Your task to perform on an android device: set an alarm Image 0: 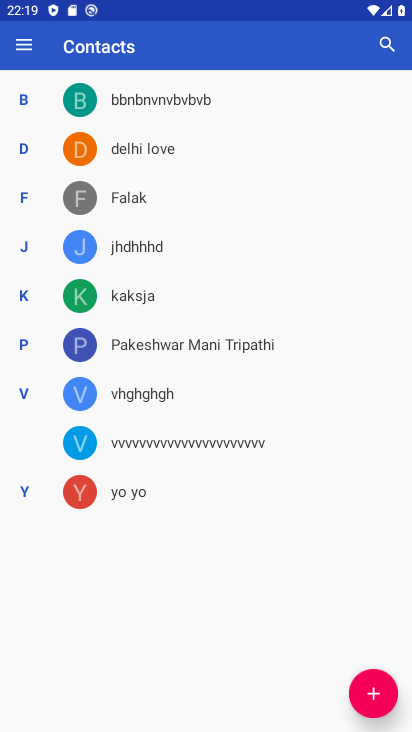
Step 0: press home button
Your task to perform on an android device: set an alarm Image 1: 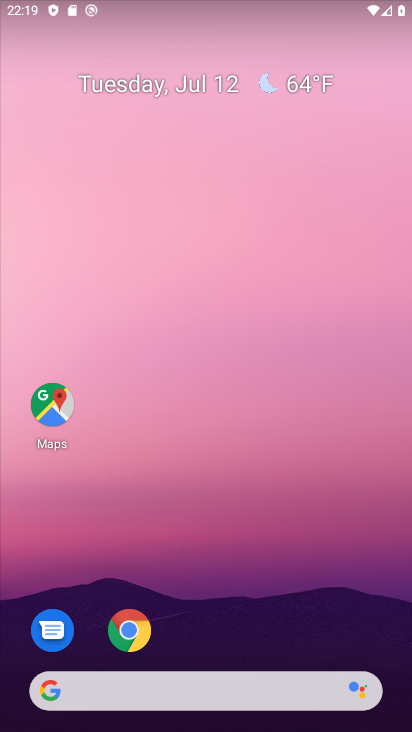
Step 1: drag from (209, 637) to (195, 61)
Your task to perform on an android device: set an alarm Image 2: 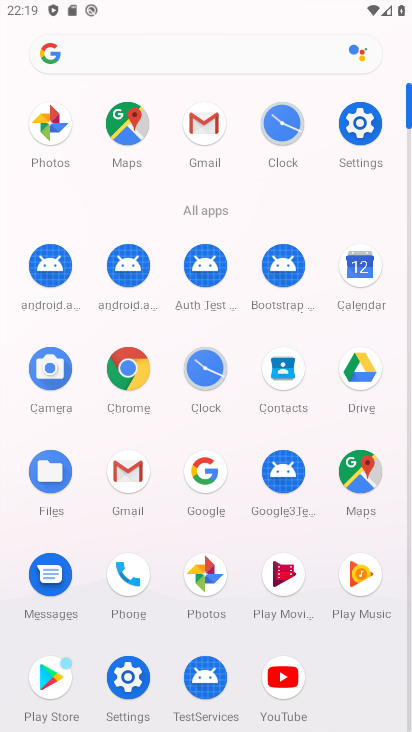
Step 2: click (175, 367)
Your task to perform on an android device: set an alarm Image 3: 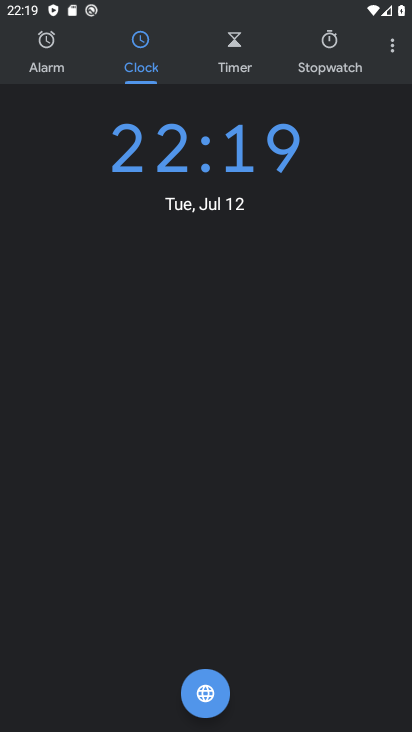
Step 3: click (53, 63)
Your task to perform on an android device: set an alarm Image 4: 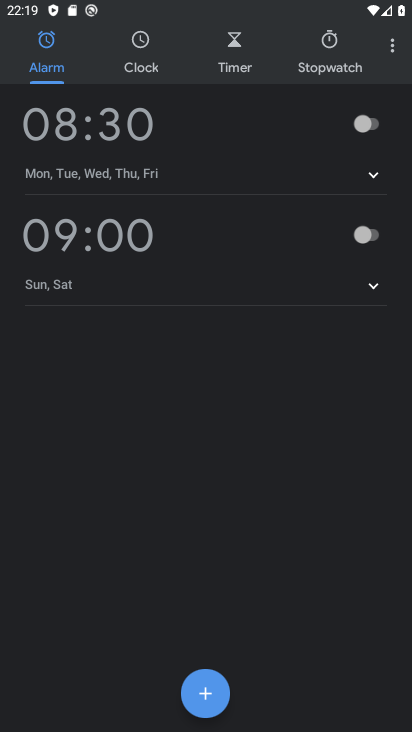
Step 4: click (221, 694)
Your task to perform on an android device: set an alarm Image 5: 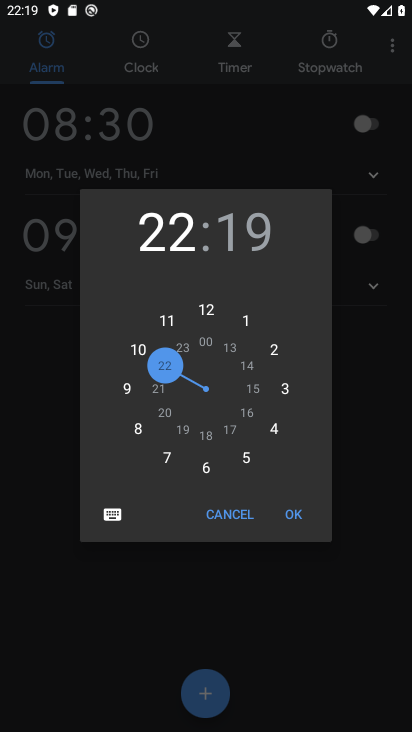
Step 5: click (293, 513)
Your task to perform on an android device: set an alarm Image 6: 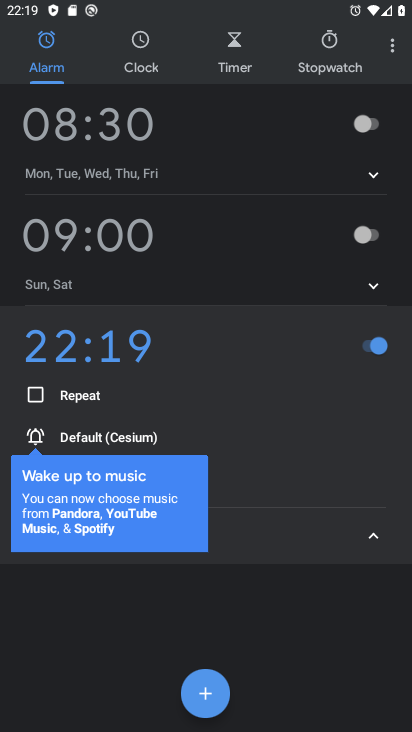
Step 6: task complete